Your task to perform on an android device: toggle location history Image 0: 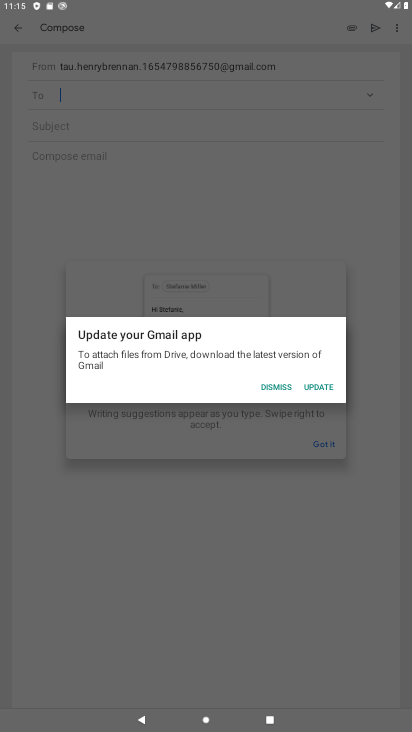
Step 0: press home button
Your task to perform on an android device: toggle location history Image 1: 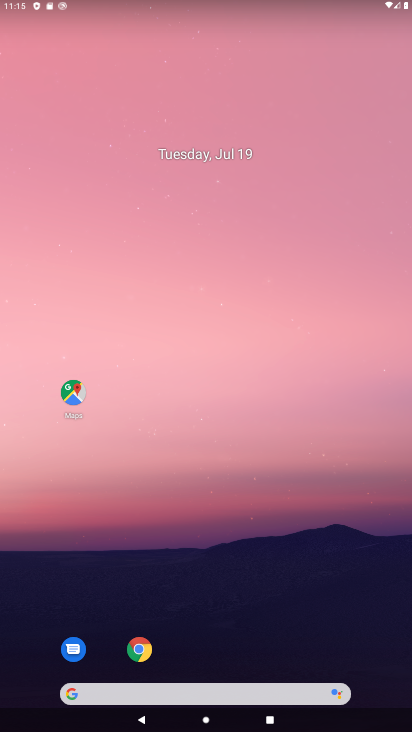
Step 1: drag from (162, 666) to (187, 268)
Your task to perform on an android device: toggle location history Image 2: 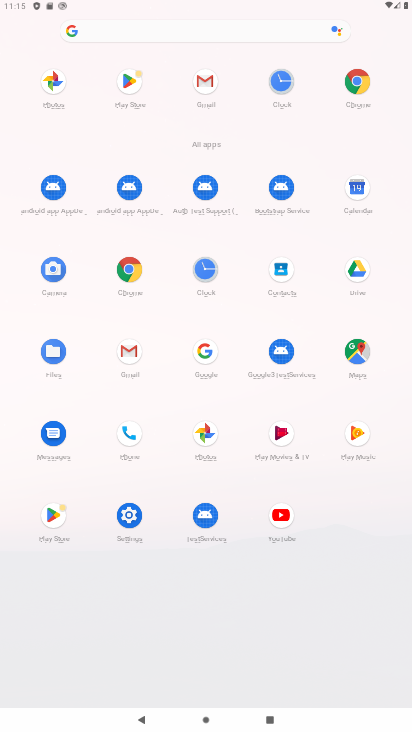
Step 2: click (123, 518)
Your task to perform on an android device: toggle location history Image 3: 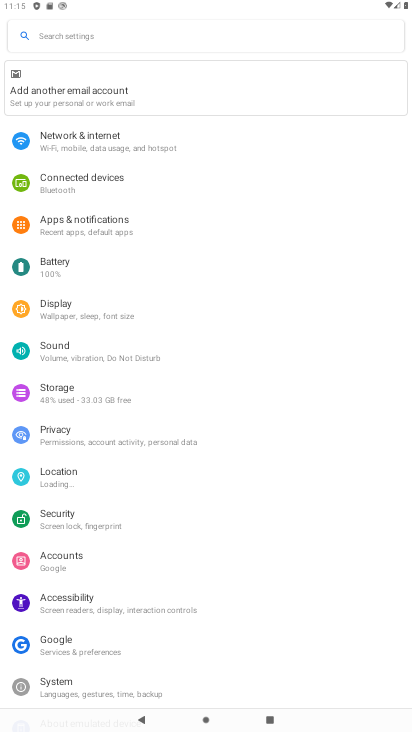
Step 3: click (80, 485)
Your task to perform on an android device: toggle location history Image 4: 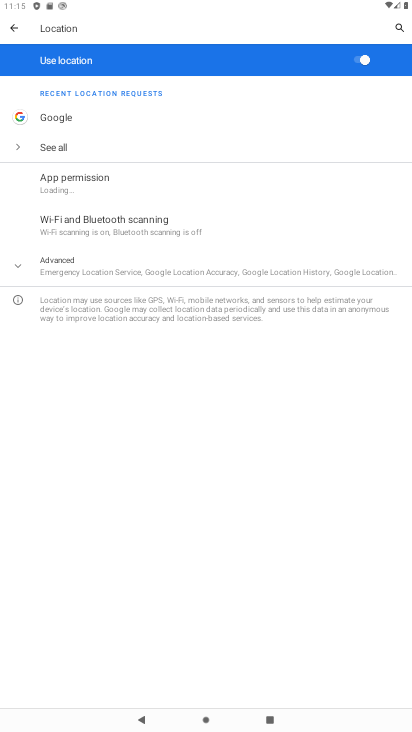
Step 4: click (71, 270)
Your task to perform on an android device: toggle location history Image 5: 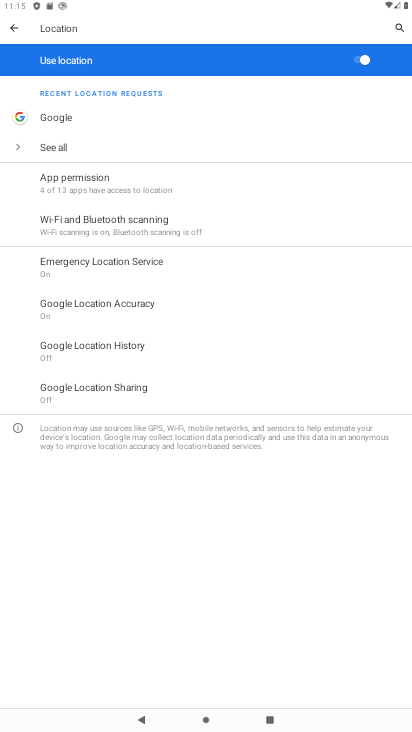
Step 5: click (146, 346)
Your task to perform on an android device: toggle location history Image 6: 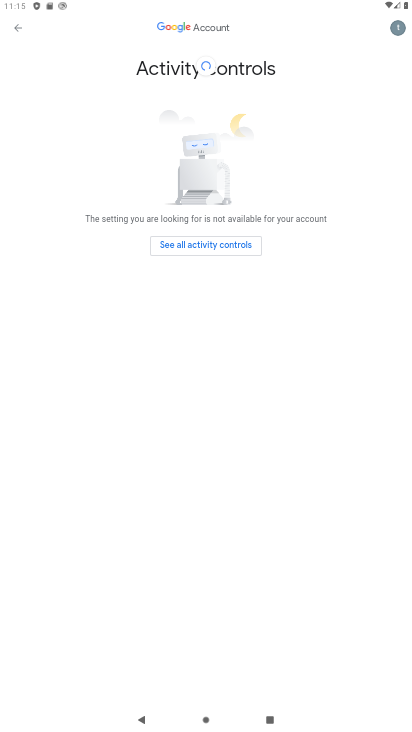
Step 6: task complete